Your task to perform on an android device: Open Google Chrome and open the bookmarks view Image 0: 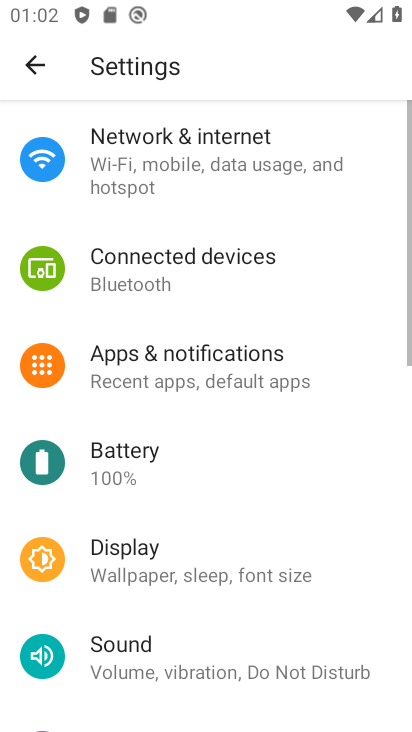
Step 0: press home button
Your task to perform on an android device: Open Google Chrome and open the bookmarks view Image 1: 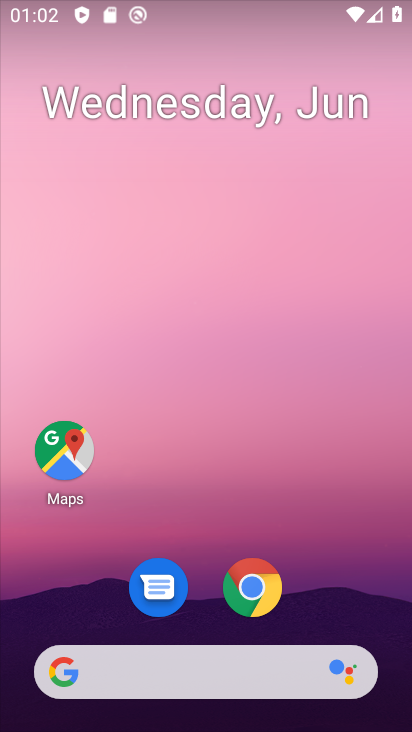
Step 1: click (256, 587)
Your task to perform on an android device: Open Google Chrome and open the bookmarks view Image 2: 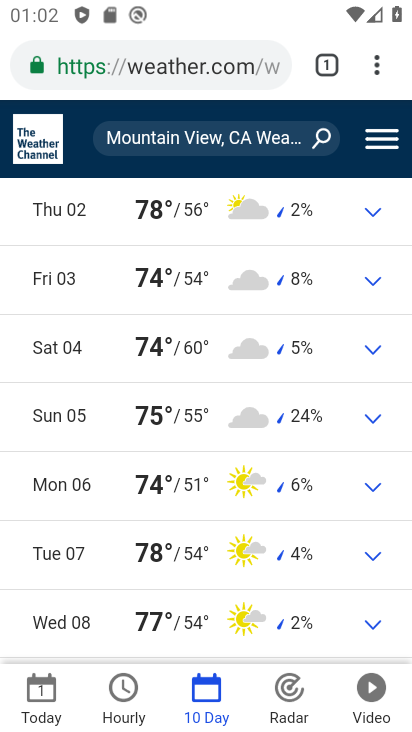
Step 2: task complete